Your task to perform on an android device: install app "Reddit" Image 0: 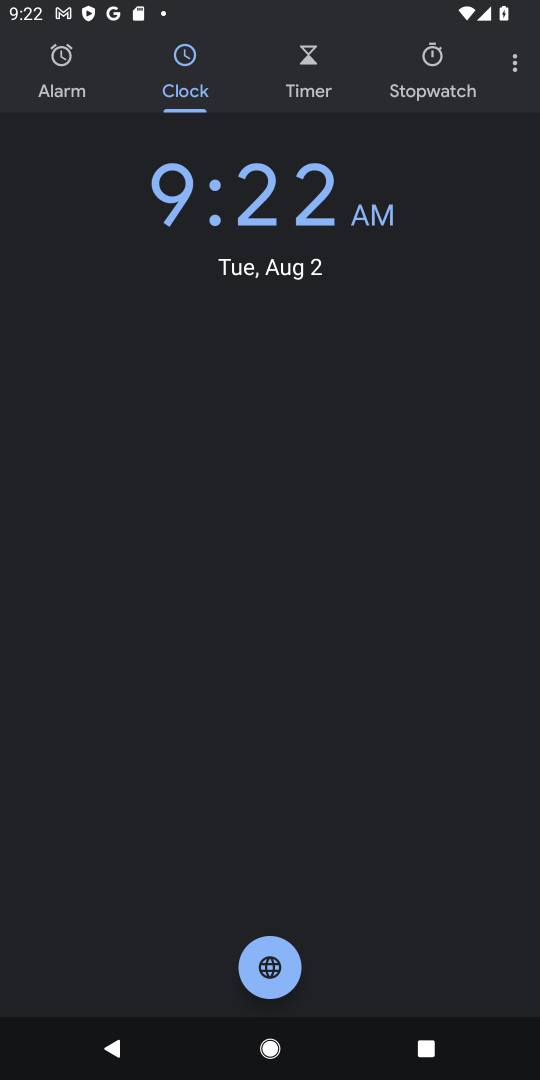
Step 0: task impossible